Your task to perform on an android device: Do I have any events today? Image 0: 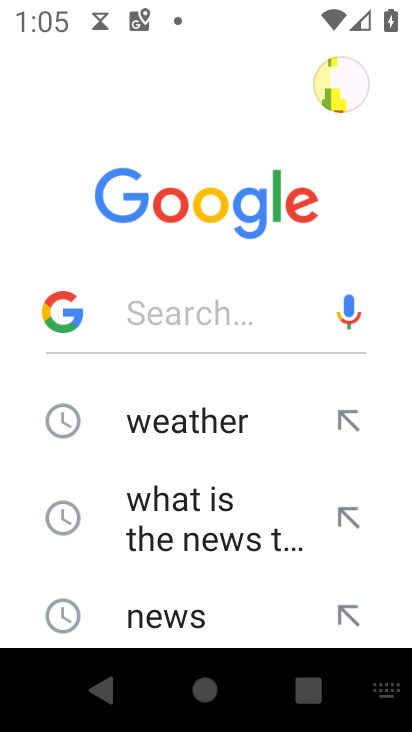
Step 0: press home button
Your task to perform on an android device: Do I have any events today? Image 1: 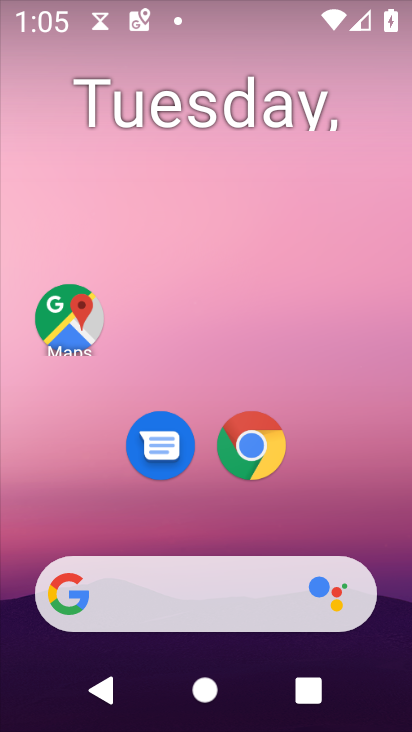
Step 1: drag from (334, 589) to (353, 41)
Your task to perform on an android device: Do I have any events today? Image 2: 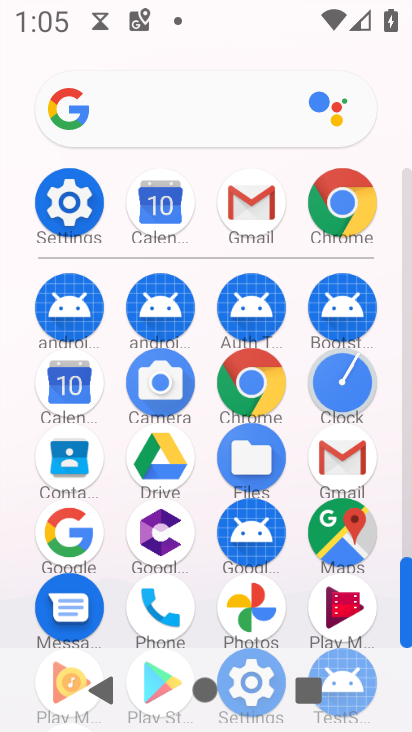
Step 2: click (86, 384)
Your task to perform on an android device: Do I have any events today? Image 3: 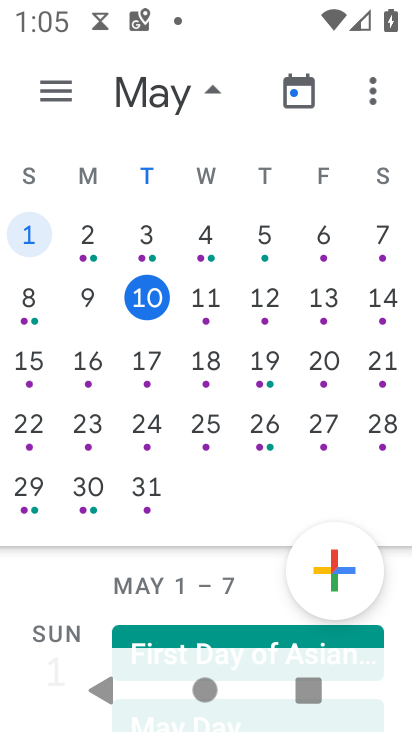
Step 3: click (150, 304)
Your task to perform on an android device: Do I have any events today? Image 4: 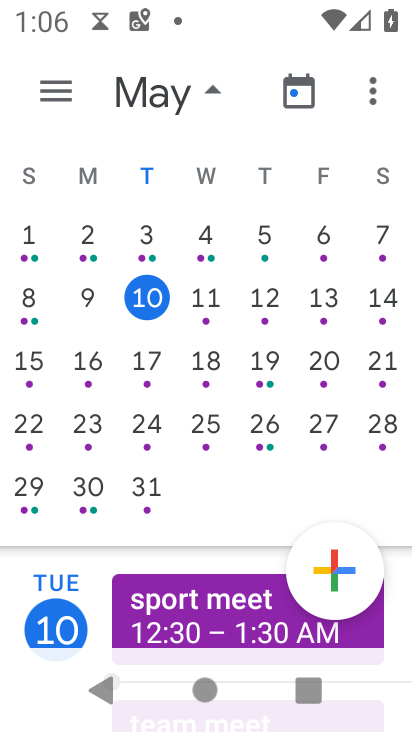
Step 4: task complete